Your task to perform on an android device: When is my next appointment? Image 0: 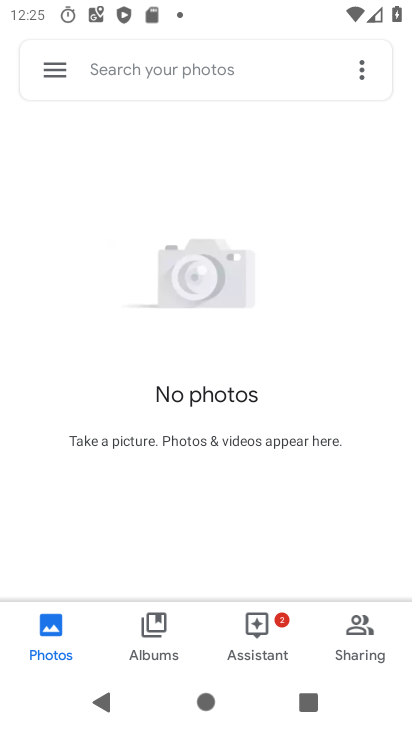
Step 0: press home button
Your task to perform on an android device: When is my next appointment? Image 1: 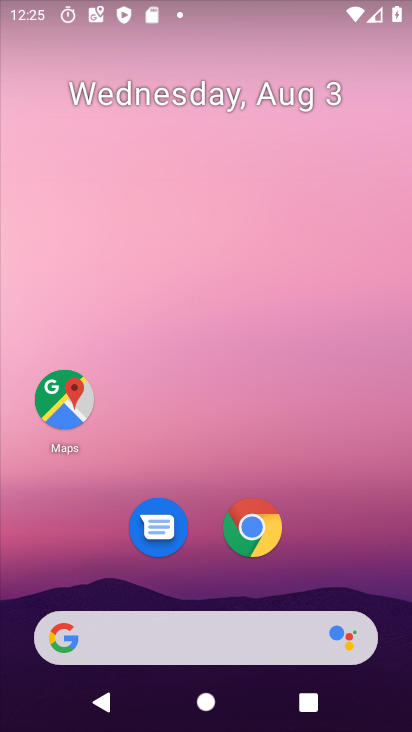
Step 1: drag from (232, 577) to (262, 2)
Your task to perform on an android device: When is my next appointment? Image 2: 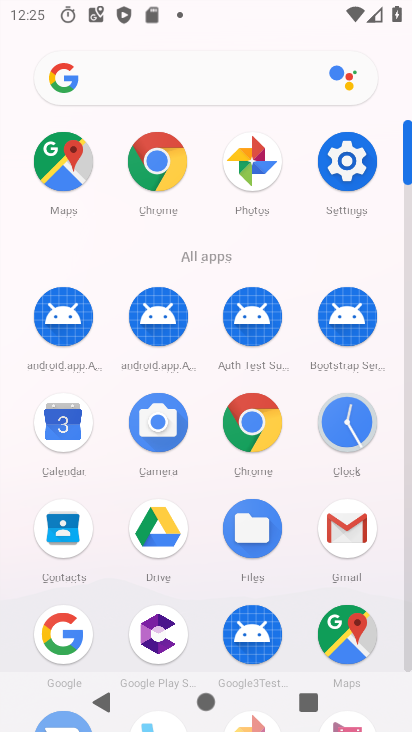
Step 2: click (72, 443)
Your task to perform on an android device: When is my next appointment? Image 3: 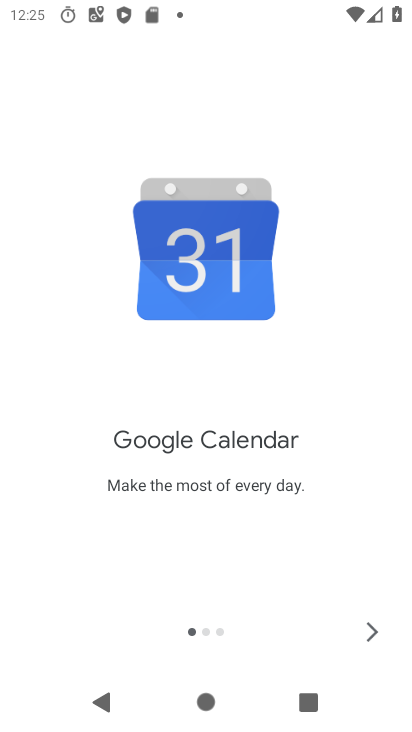
Step 3: click (367, 618)
Your task to perform on an android device: When is my next appointment? Image 4: 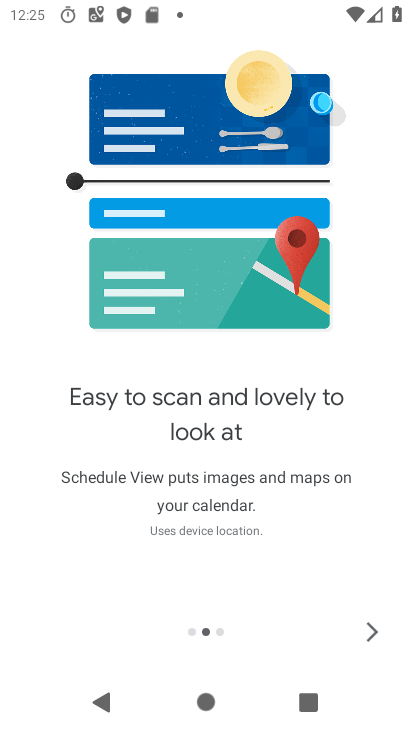
Step 4: click (371, 633)
Your task to perform on an android device: When is my next appointment? Image 5: 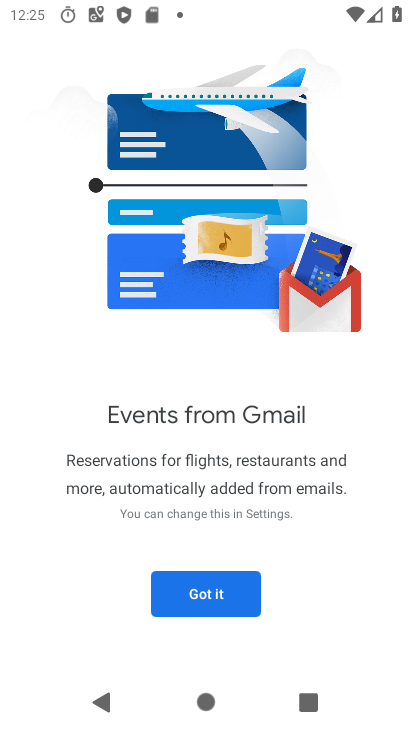
Step 5: click (220, 602)
Your task to perform on an android device: When is my next appointment? Image 6: 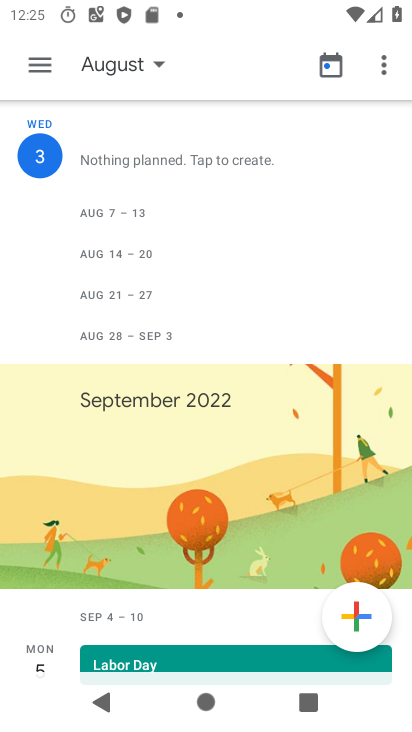
Step 6: click (38, 66)
Your task to perform on an android device: When is my next appointment? Image 7: 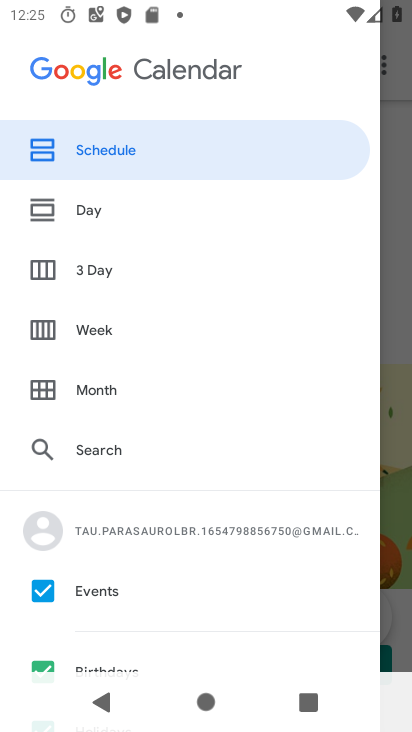
Step 7: drag from (119, 572) to (134, 346)
Your task to perform on an android device: When is my next appointment? Image 8: 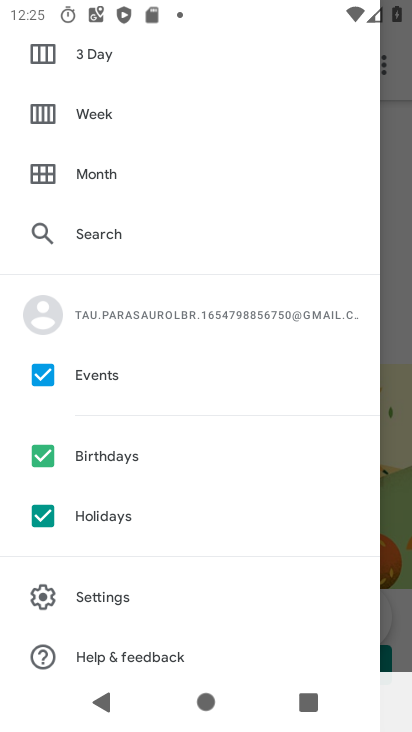
Step 8: click (118, 511)
Your task to perform on an android device: When is my next appointment? Image 9: 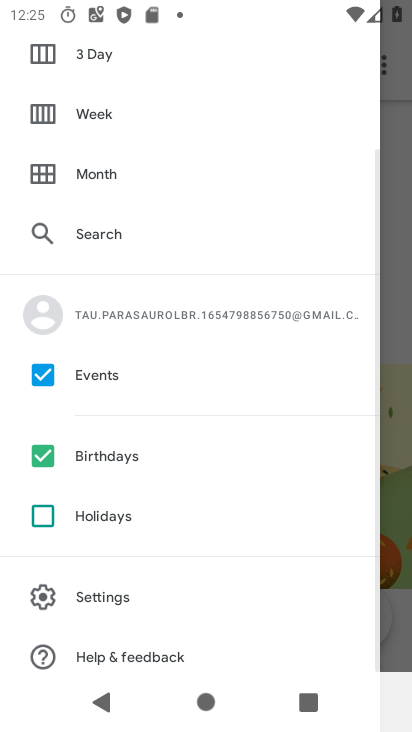
Step 9: drag from (154, 316) to (154, 385)
Your task to perform on an android device: When is my next appointment? Image 10: 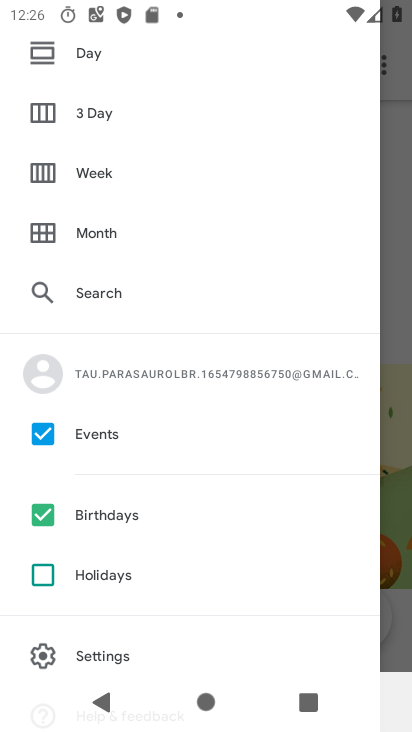
Step 10: drag from (122, 108) to (95, 646)
Your task to perform on an android device: When is my next appointment? Image 11: 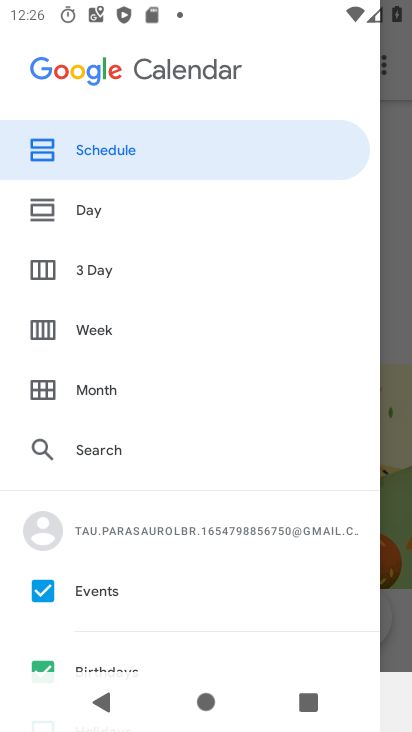
Step 11: click (74, 58)
Your task to perform on an android device: When is my next appointment? Image 12: 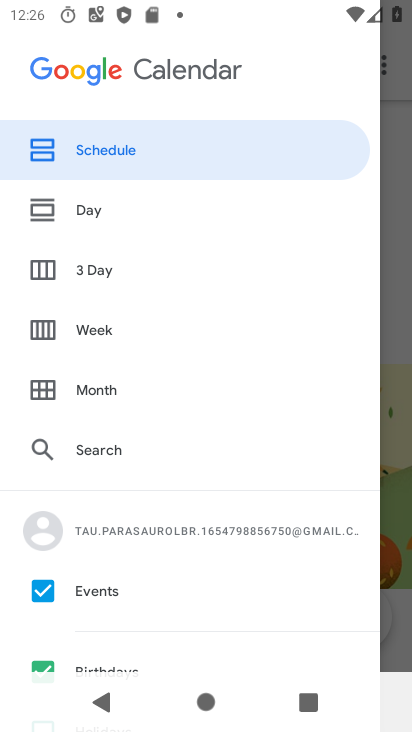
Step 12: click (113, 65)
Your task to perform on an android device: When is my next appointment? Image 13: 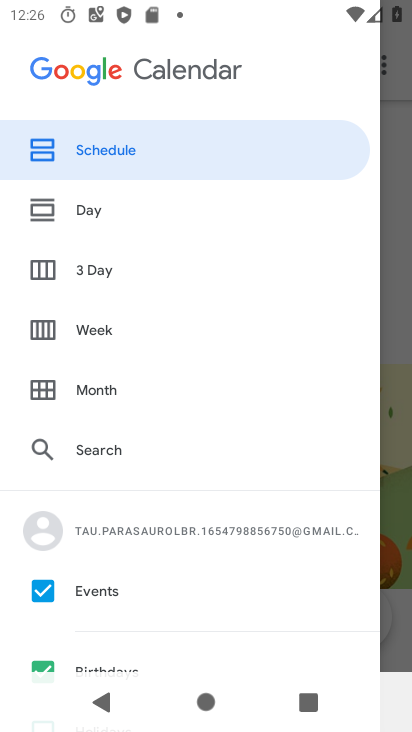
Step 13: drag from (355, 194) to (0, 223)
Your task to perform on an android device: When is my next appointment? Image 14: 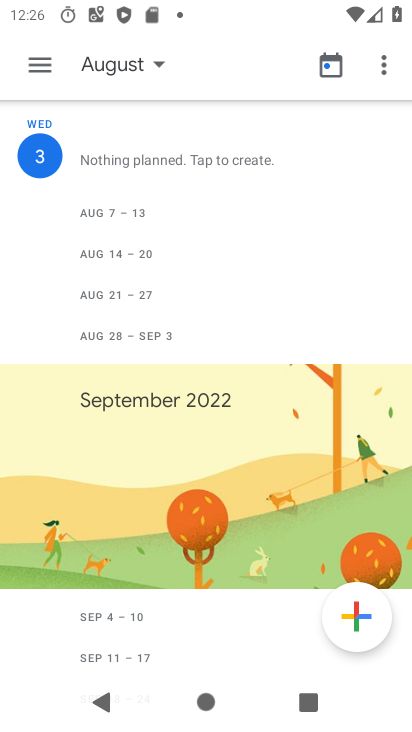
Step 14: click (114, 213)
Your task to perform on an android device: When is my next appointment? Image 15: 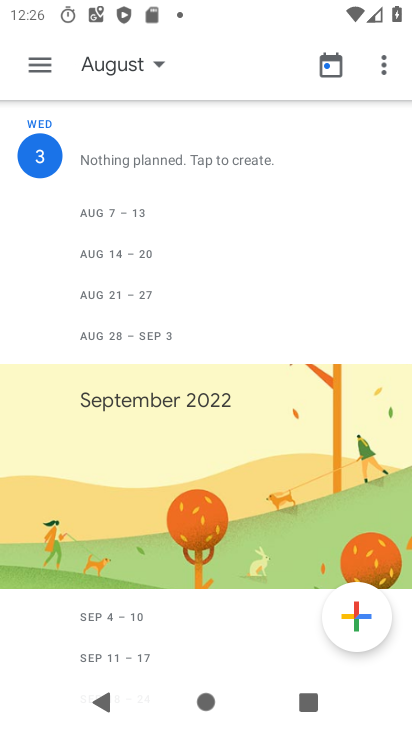
Step 15: click (123, 246)
Your task to perform on an android device: When is my next appointment? Image 16: 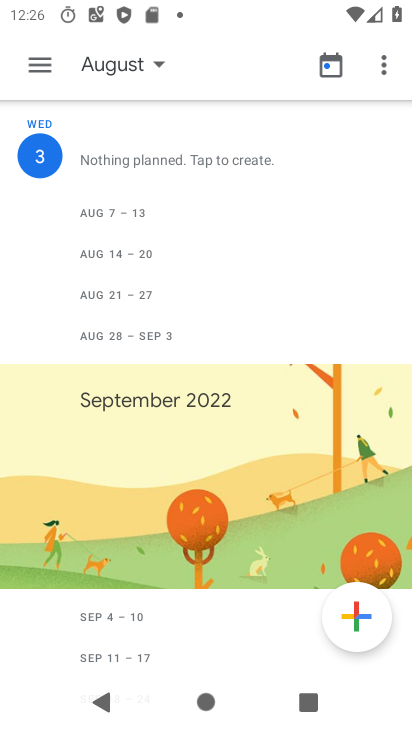
Step 16: task complete